Your task to perform on an android device: open app "Nova Launcher" (install if not already installed) and go to login screen Image 0: 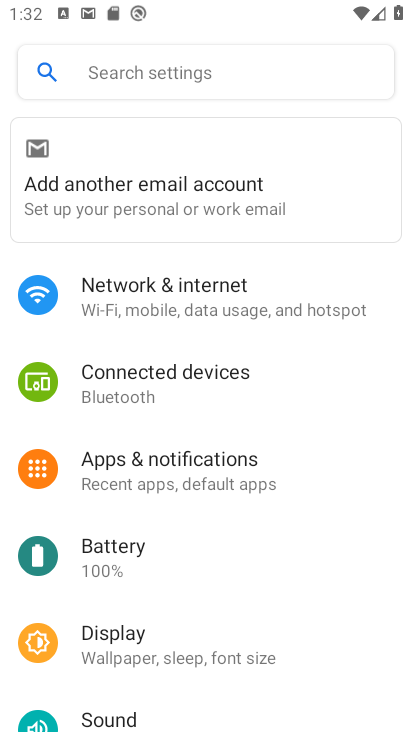
Step 0: press home button
Your task to perform on an android device: open app "Nova Launcher" (install if not already installed) and go to login screen Image 1: 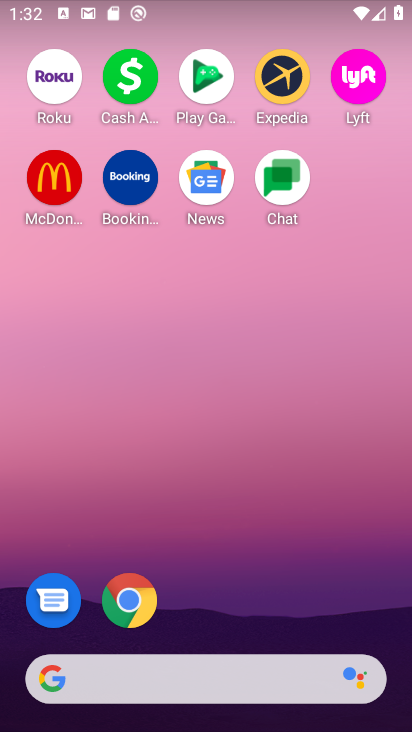
Step 1: drag from (300, 603) to (316, 25)
Your task to perform on an android device: open app "Nova Launcher" (install if not already installed) and go to login screen Image 2: 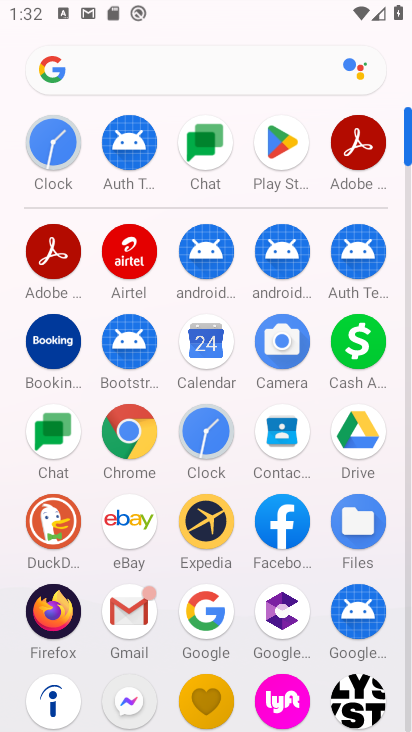
Step 2: click (288, 130)
Your task to perform on an android device: open app "Nova Launcher" (install if not already installed) and go to login screen Image 3: 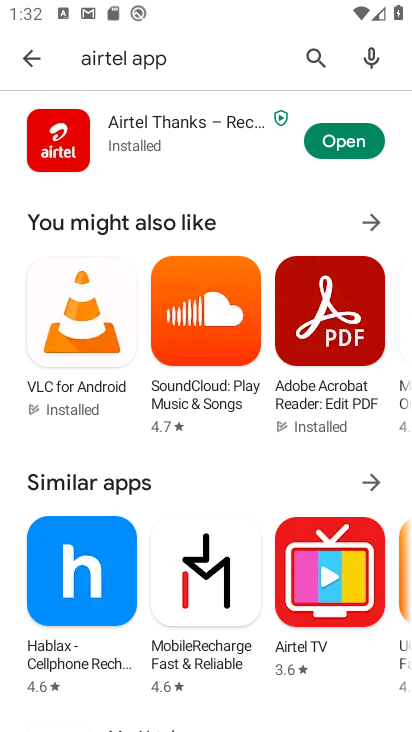
Step 3: click (316, 64)
Your task to perform on an android device: open app "Nova Launcher" (install if not already installed) and go to login screen Image 4: 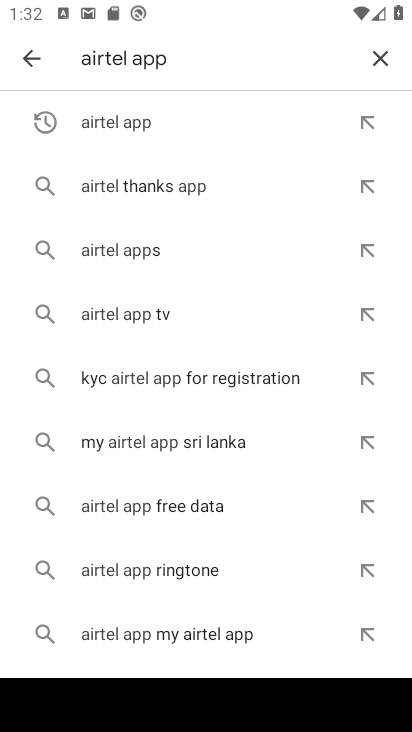
Step 4: click (367, 66)
Your task to perform on an android device: open app "Nova Launcher" (install if not already installed) and go to login screen Image 5: 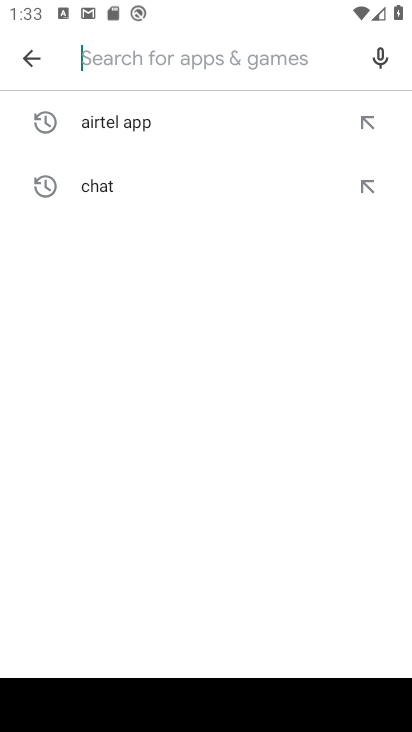
Step 5: task complete